Your task to perform on an android device: Open the map Image 0: 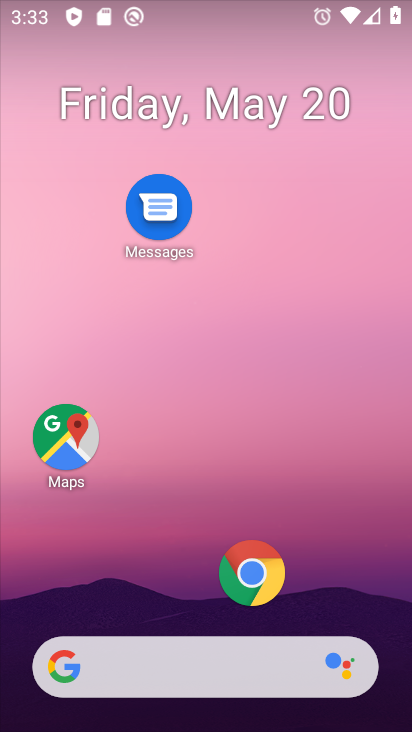
Step 0: drag from (193, 634) to (260, 0)
Your task to perform on an android device: Open the map Image 1: 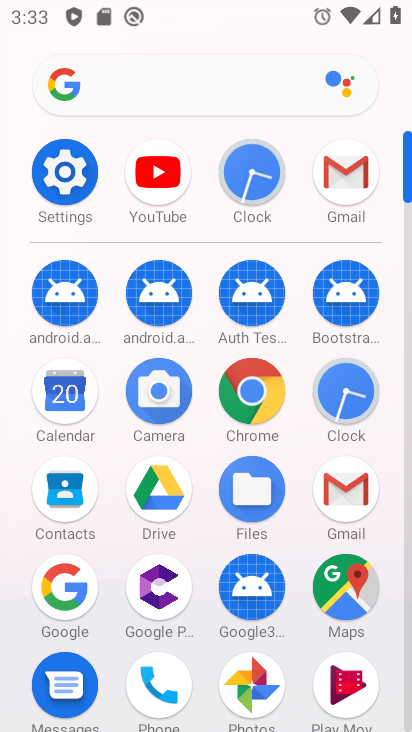
Step 1: click (336, 590)
Your task to perform on an android device: Open the map Image 2: 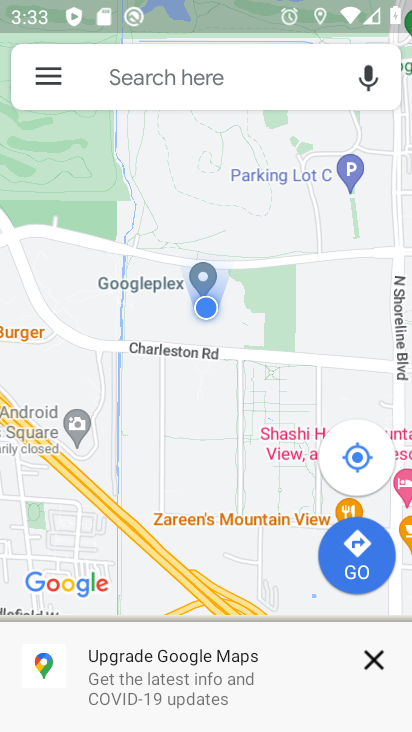
Step 2: task complete